Your task to perform on an android device: Open privacy settings Image 0: 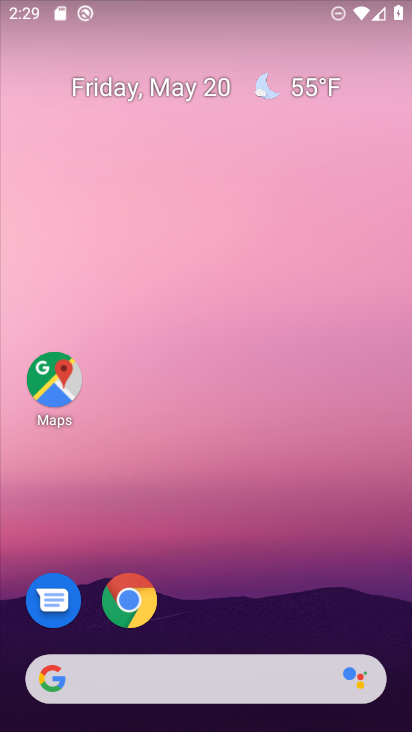
Step 0: drag from (222, 678) to (232, 126)
Your task to perform on an android device: Open privacy settings Image 1: 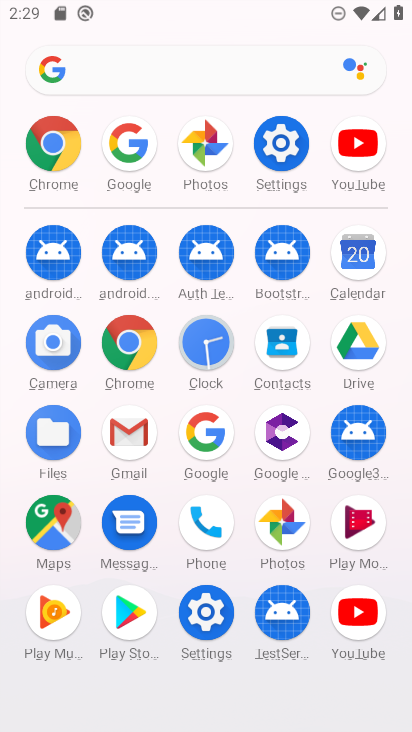
Step 1: click (272, 148)
Your task to perform on an android device: Open privacy settings Image 2: 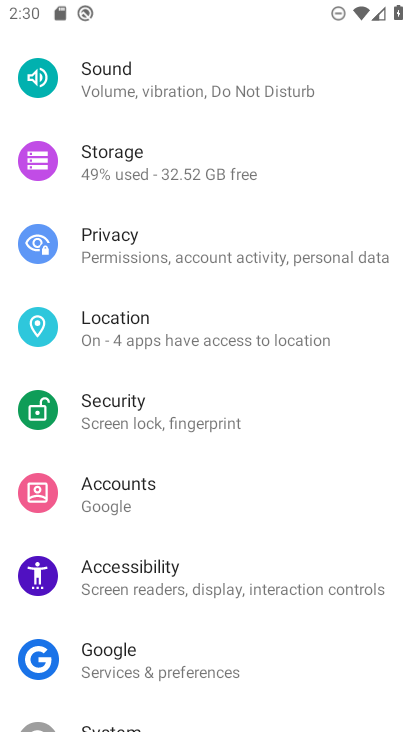
Step 2: drag from (225, 570) to (250, 201)
Your task to perform on an android device: Open privacy settings Image 3: 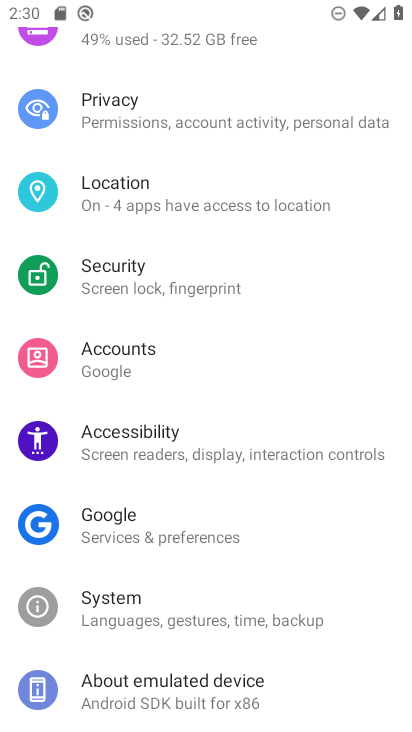
Step 3: click (169, 121)
Your task to perform on an android device: Open privacy settings Image 4: 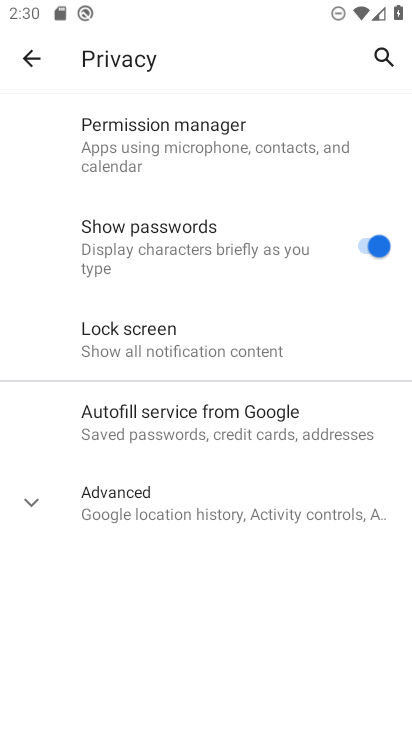
Step 4: task complete